Your task to perform on an android device: Find coffee shops on Maps Image 0: 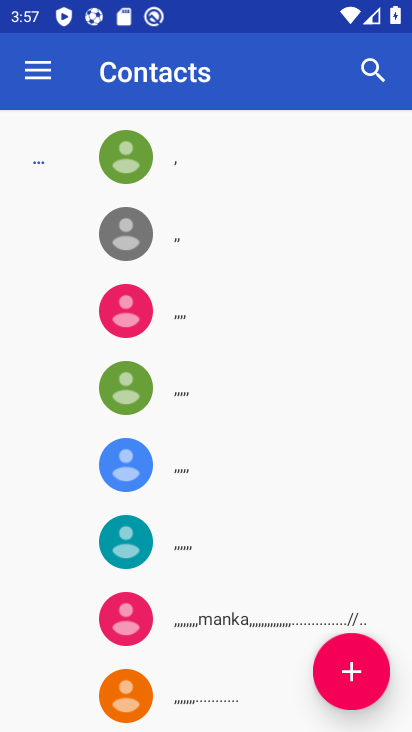
Step 0: press home button
Your task to perform on an android device: Find coffee shops on Maps Image 1: 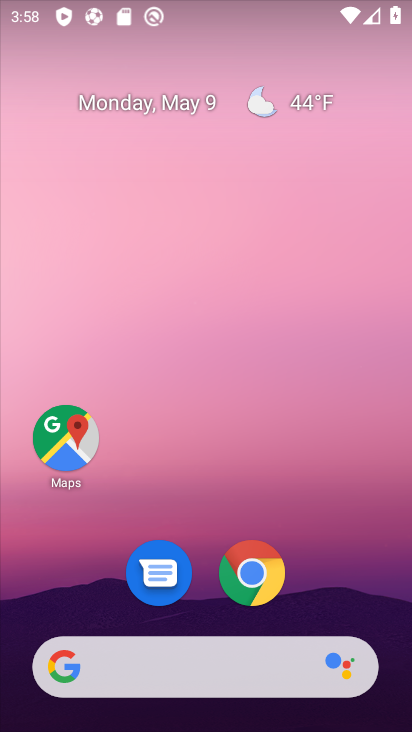
Step 1: drag from (192, 475) to (180, 431)
Your task to perform on an android device: Find coffee shops on Maps Image 2: 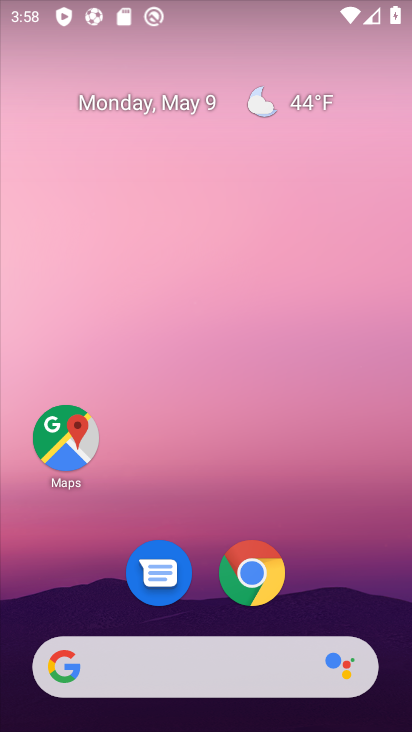
Step 2: click (75, 410)
Your task to perform on an android device: Find coffee shops on Maps Image 3: 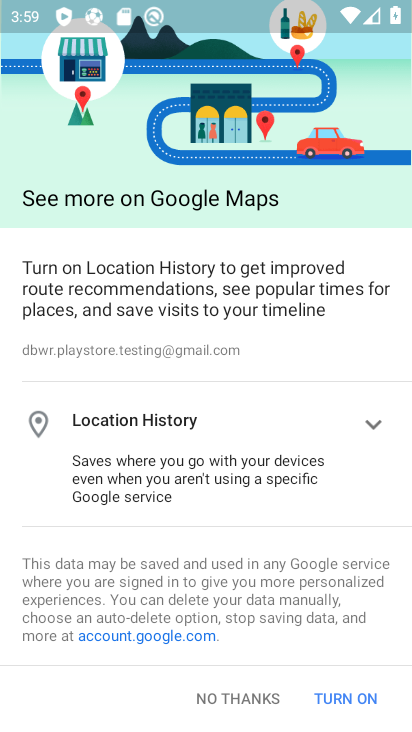
Step 3: click (264, 696)
Your task to perform on an android device: Find coffee shops on Maps Image 4: 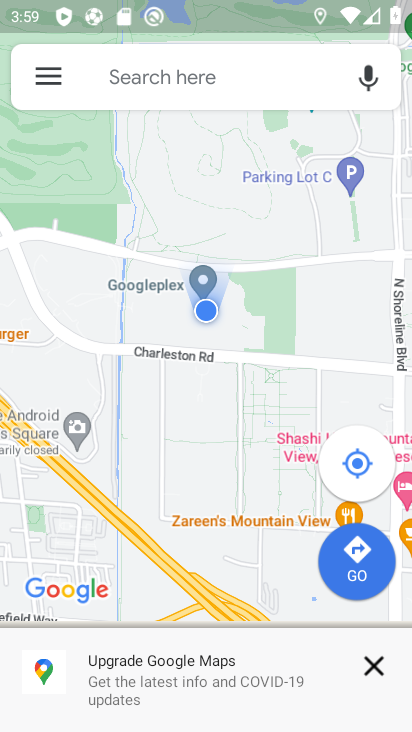
Step 4: click (109, 73)
Your task to perform on an android device: Find coffee shops on Maps Image 5: 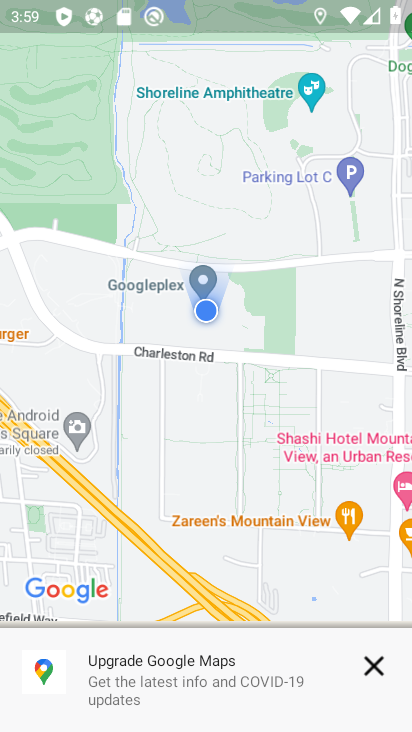
Step 5: drag from (189, 210) to (207, 355)
Your task to perform on an android device: Find coffee shops on Maps Image 6: 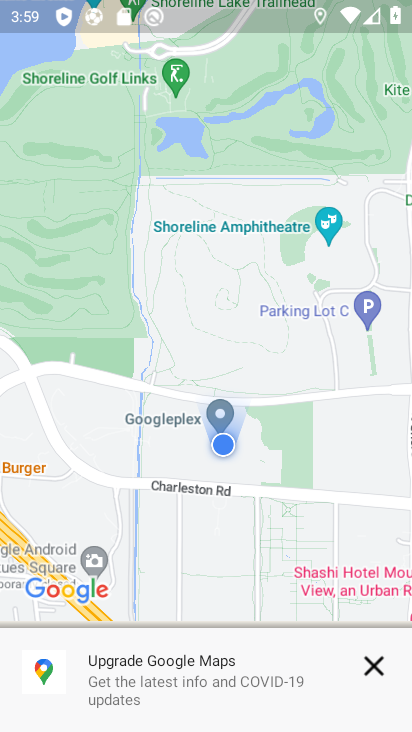
Step 6: drag from (179, 405) to (175, 141)
Your task to perform on an android device: Find coffee shops on Maps Image 7: 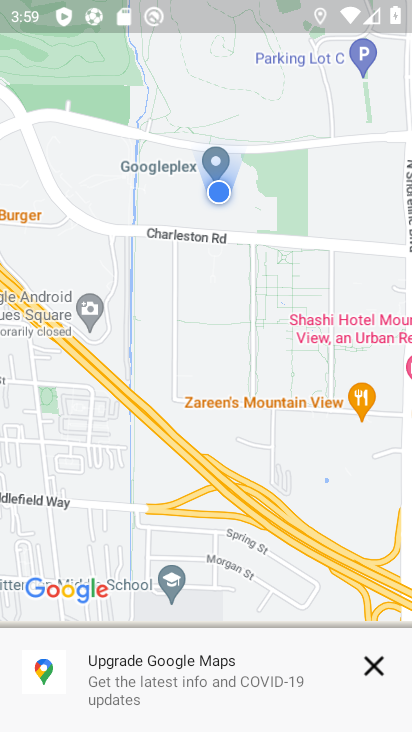
Step 7: click (370, 665)
Your task to perform on an android device: Find coffee shops on Maps Image 8: 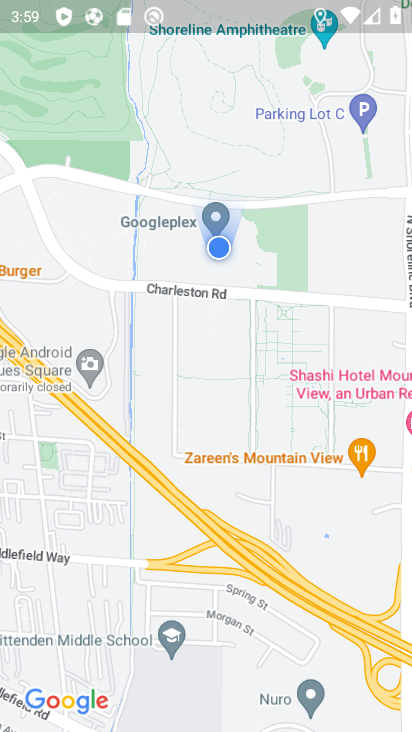
Step 8: drag from (36, 156) to (155, 534)
Your task to perform on an android device: Find coffee shops on Maps Image 9: 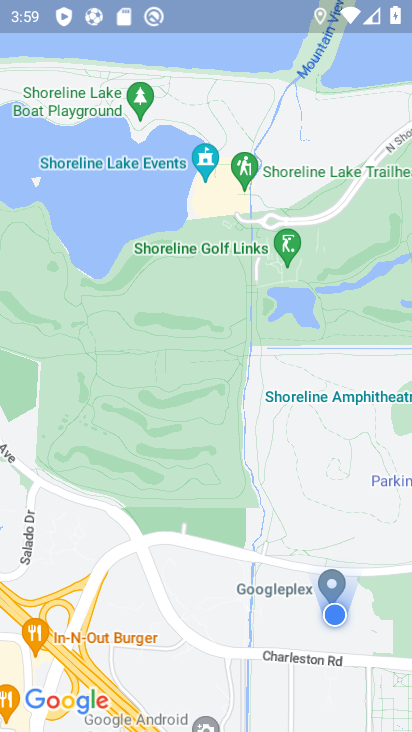
Step 9: press back button
Your task to perform on an android device: Find coffee shops on Maps Image 10: 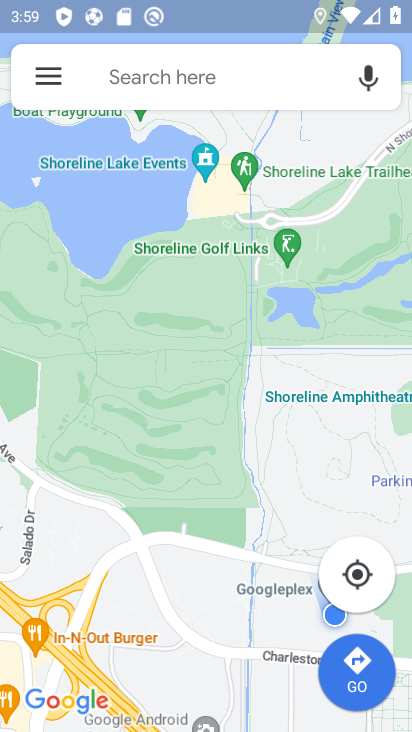
Step 10: click (151, 83)
Your task to perform on an android device: Find coffee shops on Maps Image 11: 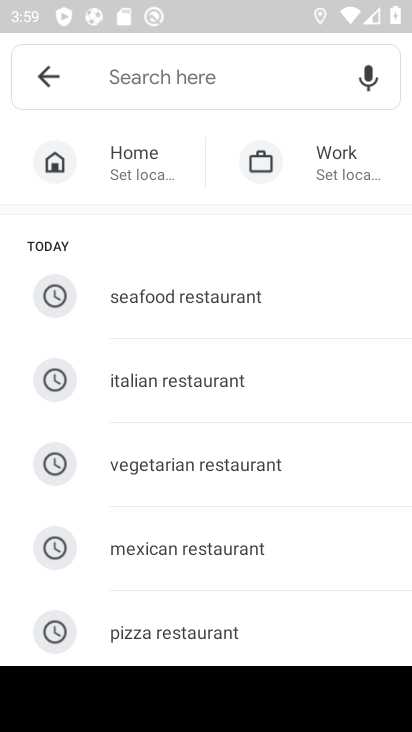
Step 11: drag from (299, 563) to (240, 632)
Your task to perform on an android device: Find coffee shops on Maps Image 12: 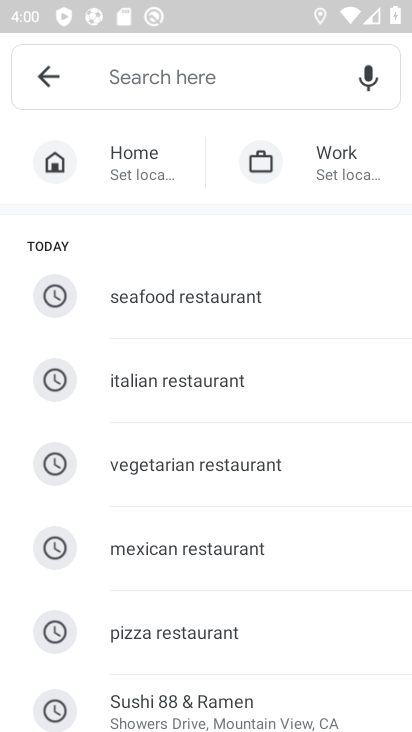
Step 12: click (193, 83)
Your task to perform on an android device: Find coffee shops on Maps Image 13: 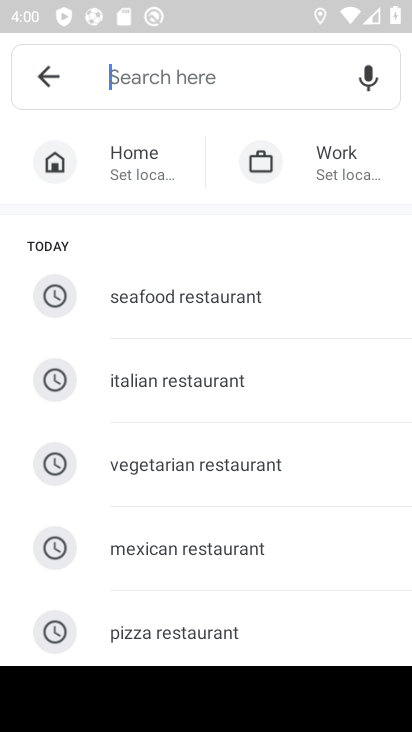
Step 13: type "coffee"
Your task to perform on an android device: Find coffee shops on Maps Image 14: 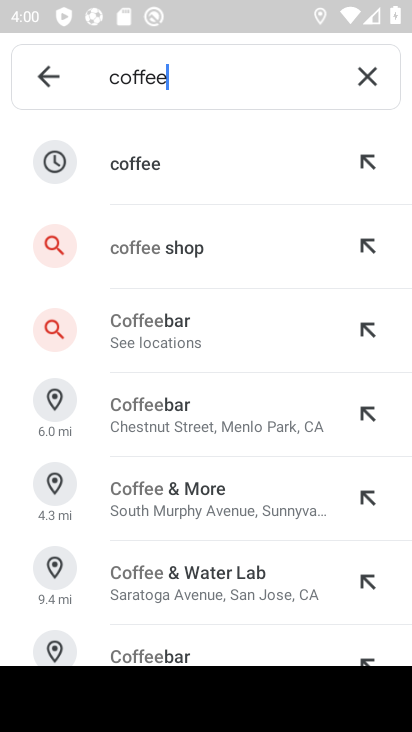
Step 14: click (163, 240)
Your task to perform on an android device: Find coffee shops on Maps Image 15: 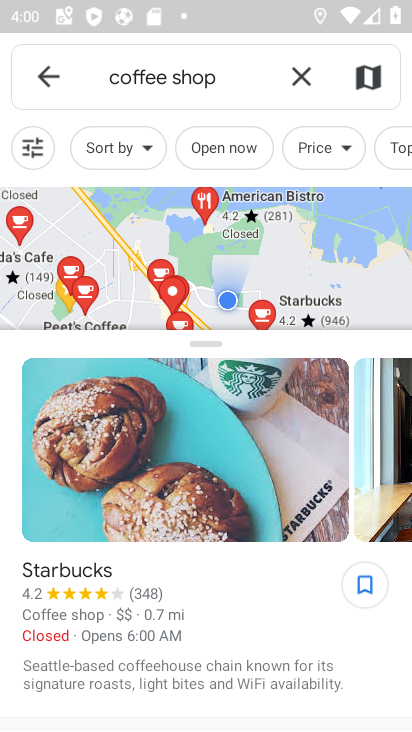
Step 15: task complete